Your task to perform on an android device: Open sound settings Image 0: 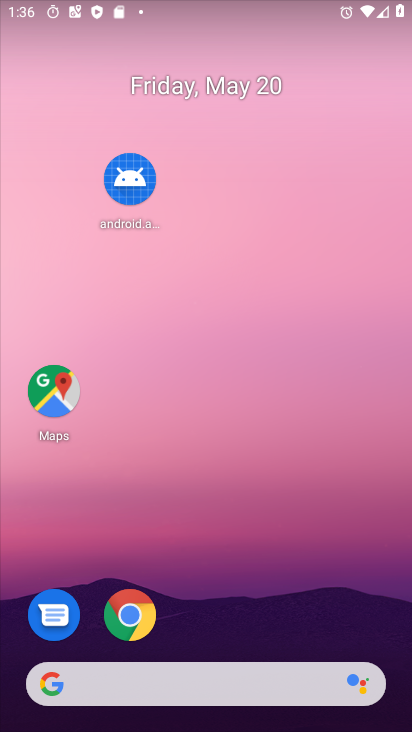
Step 0: drag from (286, 575) to (196, 121)
Your task to perform on an android device: Open sound settings Image 1: 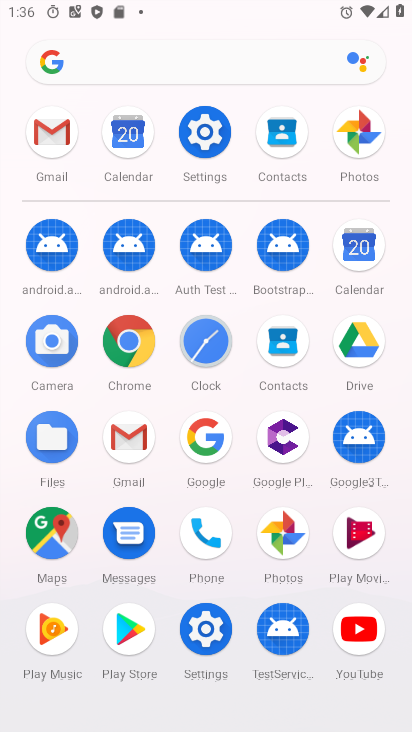
Step 1: click (204, 154)
Your task to perform on an android device: Open sound settings Image 2: 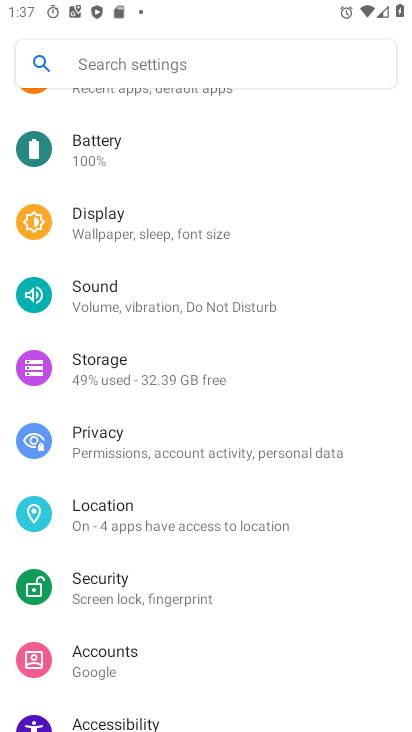
Step 2: click (119, 313)
Your task to perform on an android device: Open sound settings Image 3: 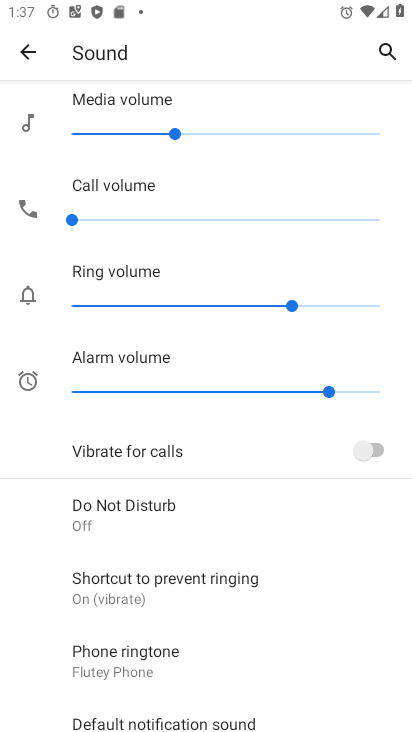
Step 3: task complete